Your task to perform on an android device: toggle data saver in the chrome app Image 0: 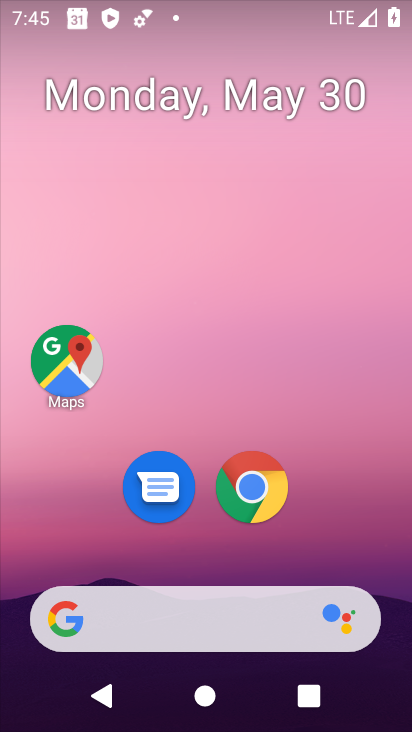
Step 0: click (262, 486)
Your task to perform on an android device: toggle data saver in the chrome app Image 1: 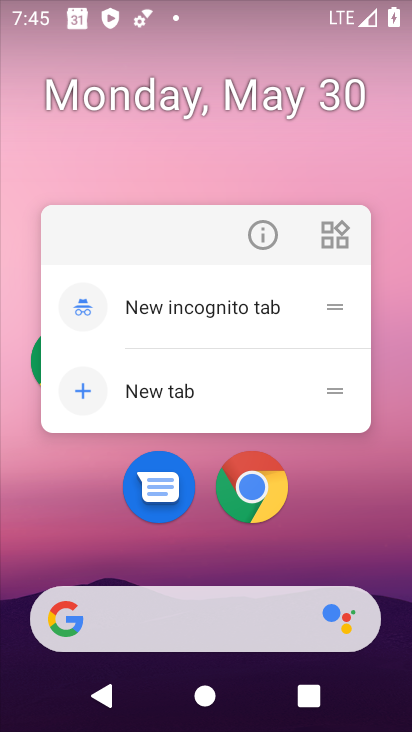
Step 1: click (262, 486)
Your task to perform on an android device: toggle data saver in the chrome app Image 2: 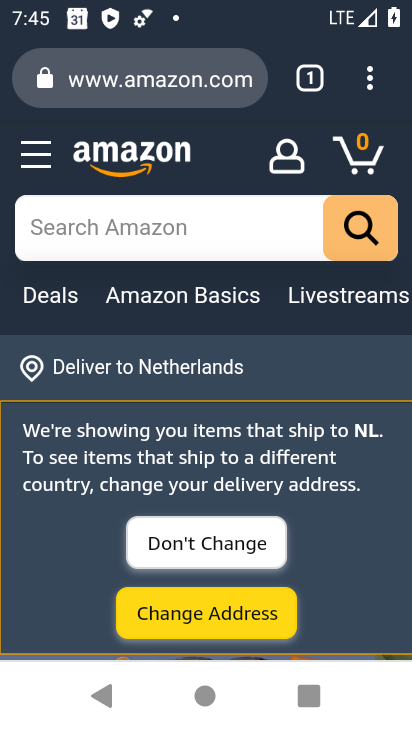
Step 2: click (359, 76)
Your task to perform on an android device: toggle data saver in the chrome app Image 3: 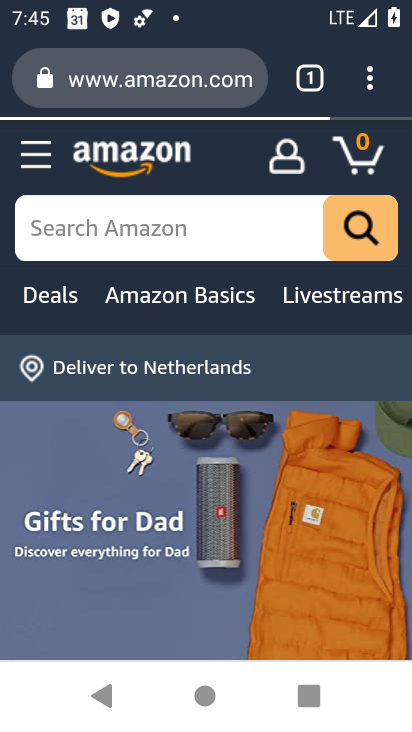
Step 3: click (370, 78)
Your task to perform on an android device: toggle data saver in the chrome app Image 4: 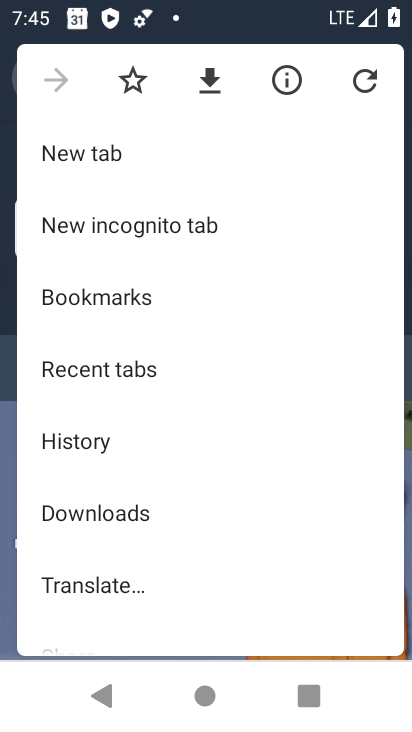
Step 4: drag from (300, 622) to (313, 254)
Your task to perform on an android device: toggle data saver in the chrome app Image 5: 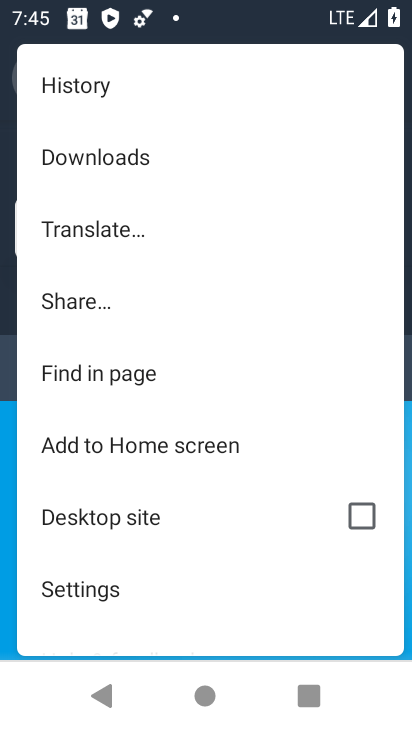
Step 5: drag from (246, 587) to (275, 253)
Your task to perform on an android device: toggle data saver in the chrome app Image 6: 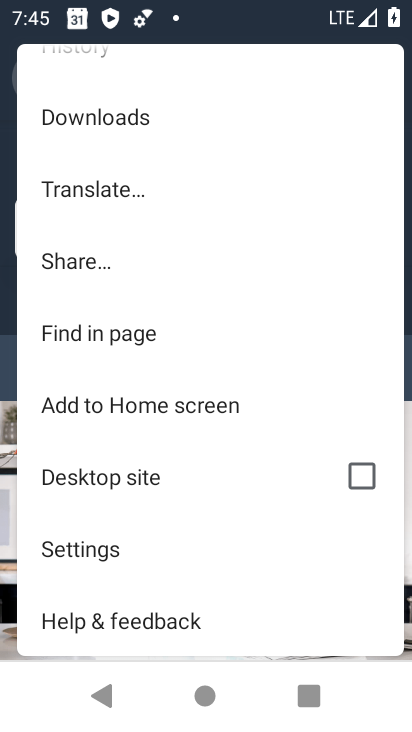
Step 6: click (84, 535)
Your task to perform on an android device: toggle data saver in the chrome app Image 7: 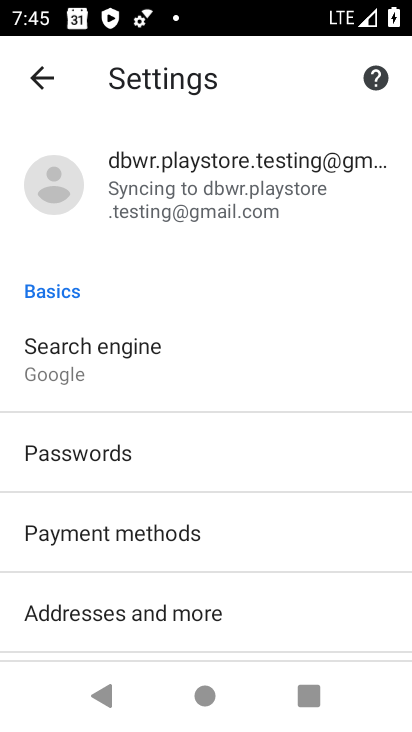
Step 7: drag from (340, 621) to (347, 192)
Your task to perform on an android device: toggle data saver in the chrome app Image 8: 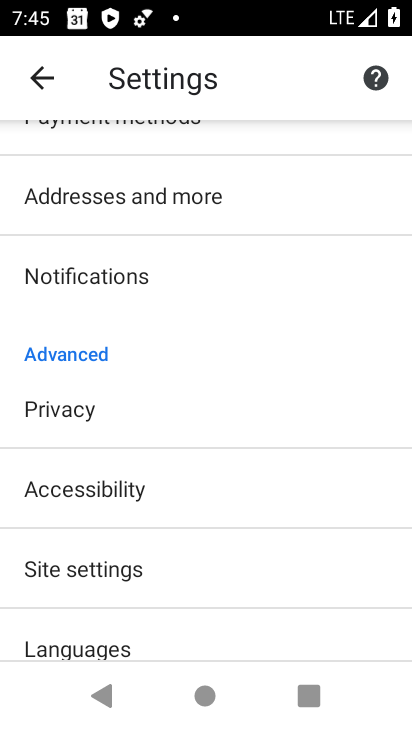
Step 8: drag from (273, 609) to (291, 312)
Your task to perform on an android device: toggle data saver in the chrome app Image 9: 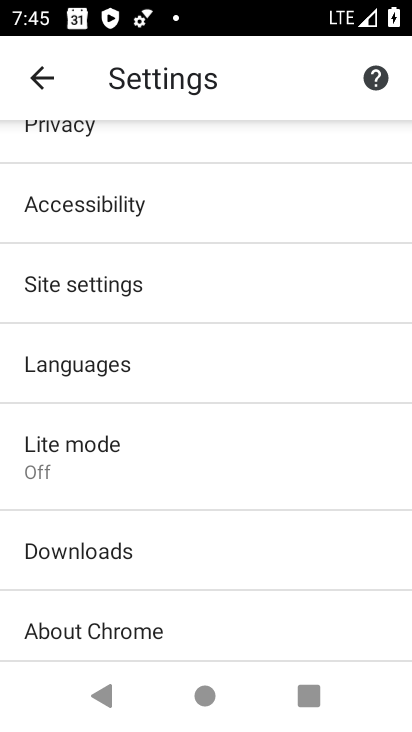
Step 9: click (81, 454)
Your task to perform on an android device: toggle data saver in the chrome app Image 10: 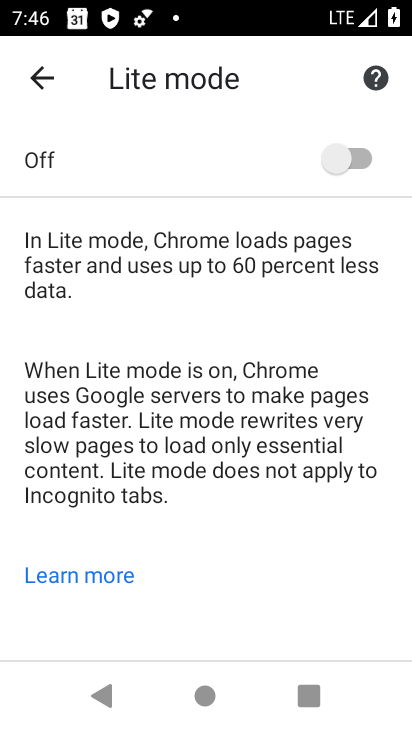
Step 10: click (354, 155)
Your task to perform on an android device: toggle data saver in the chrome app Image 11: 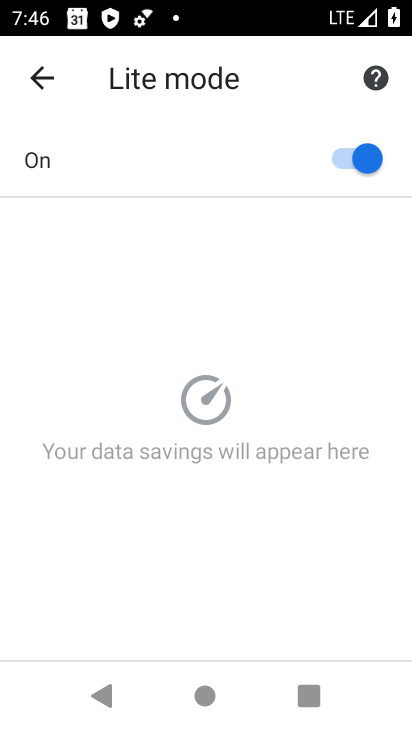
Step 11: task complete